Your task to perform on an android device: Go to display settings Image 0: 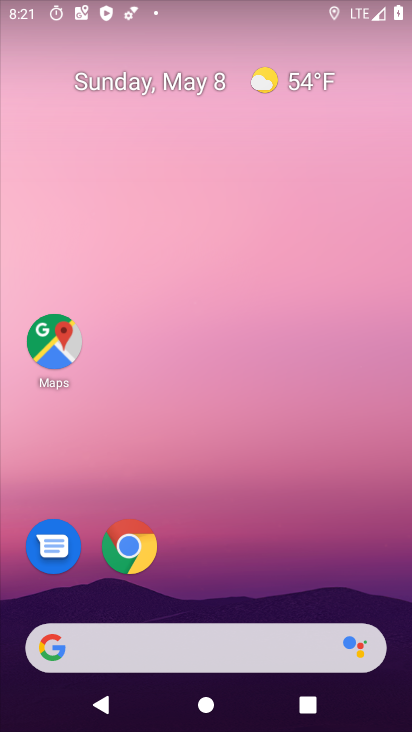
Step 0: drag from (400, 646) to (316, 112)
Your task to perform on an android device: Go to display settings Image 1: 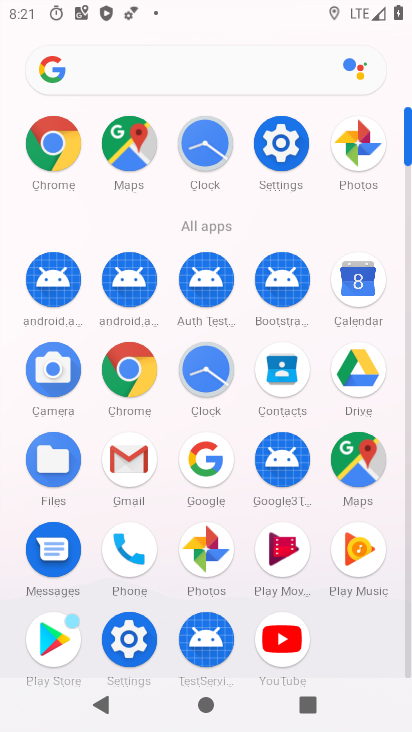
Step 1: click (278, 155)
Your task to perform on an android device: Go to display settings Image 2: 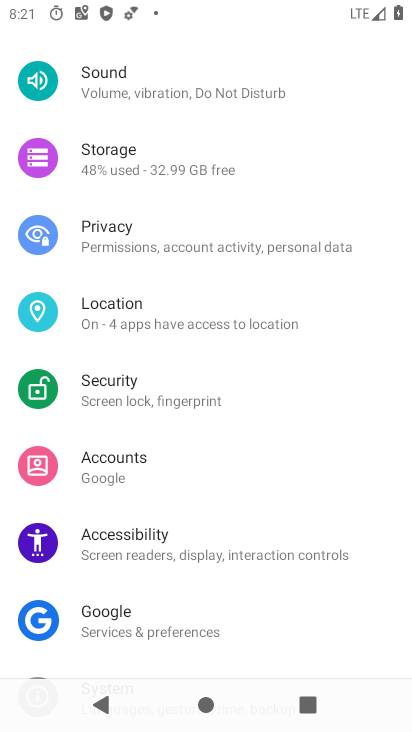
Step 2: drag from (351, 103) to (410, 483)
Your task to perform on an android device: Go to display settings Image 3: 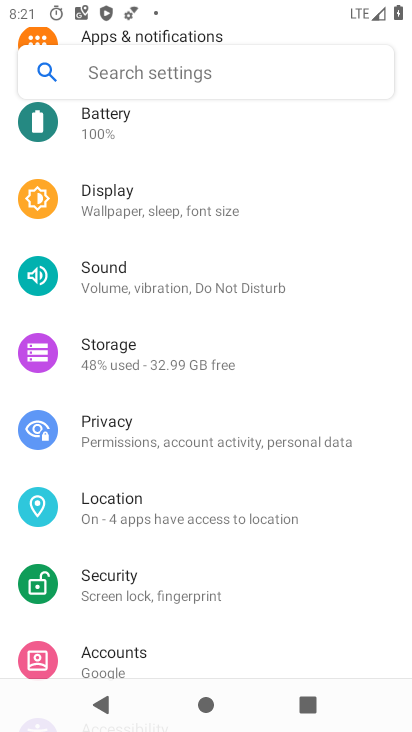
Step 3: click (164, 191)
Your task to perform on an android device: Go to display settings Image 4: 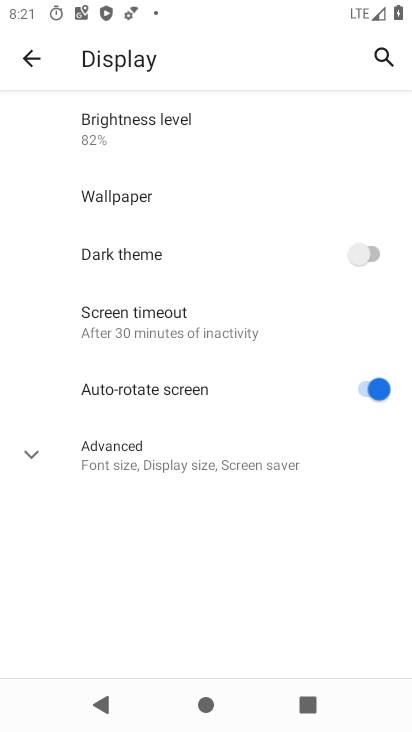
Step 4: task complete